Your task to perform on an android device: Clear the shopping cart on newegg.com. Search for macbook pro 15 inch on newegg.com, select the first entry, add it to the cart, then select checkout. Image 0: 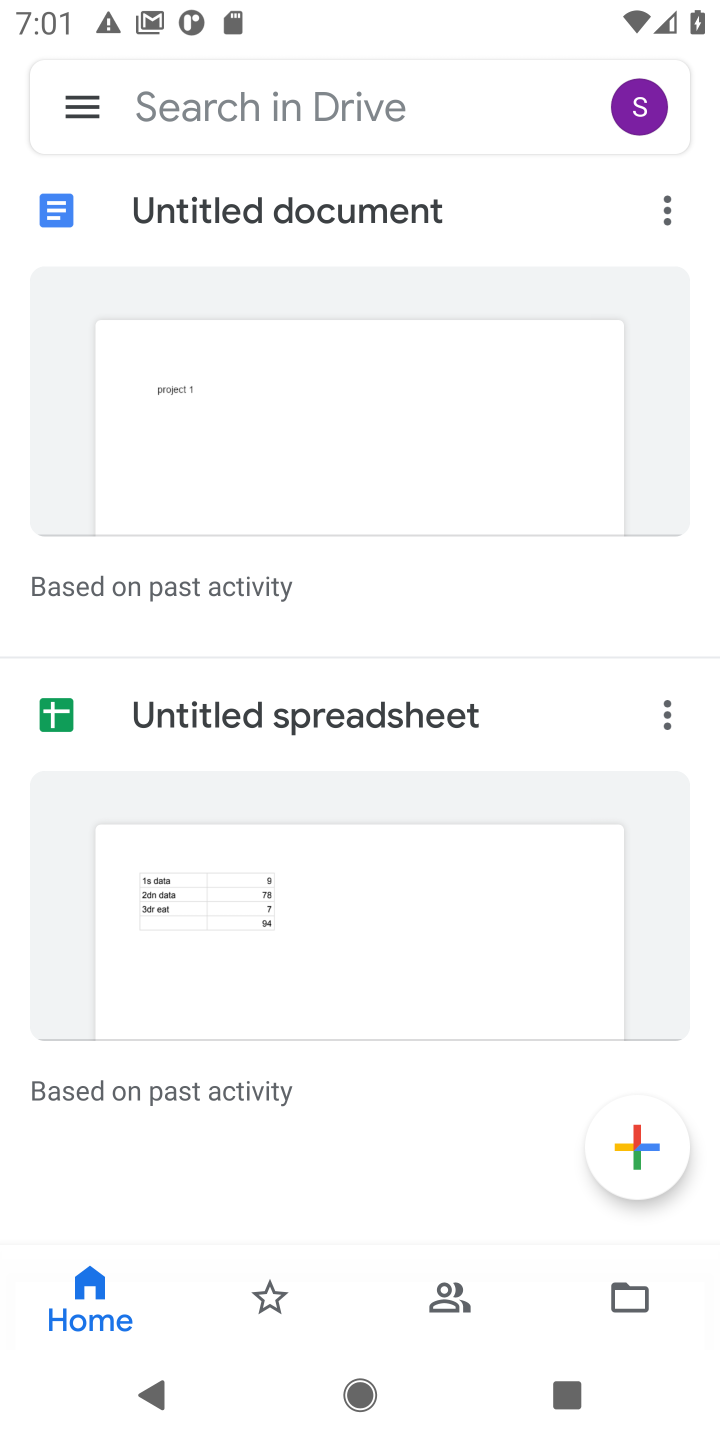
Step 0: press home button
Your task to perform on an android device: Clear the shopping cart on newegg.com. Search for macbook pro 15 inch on newegg.com, select the first entry, add it to the cart, then select checkout. Image 1: 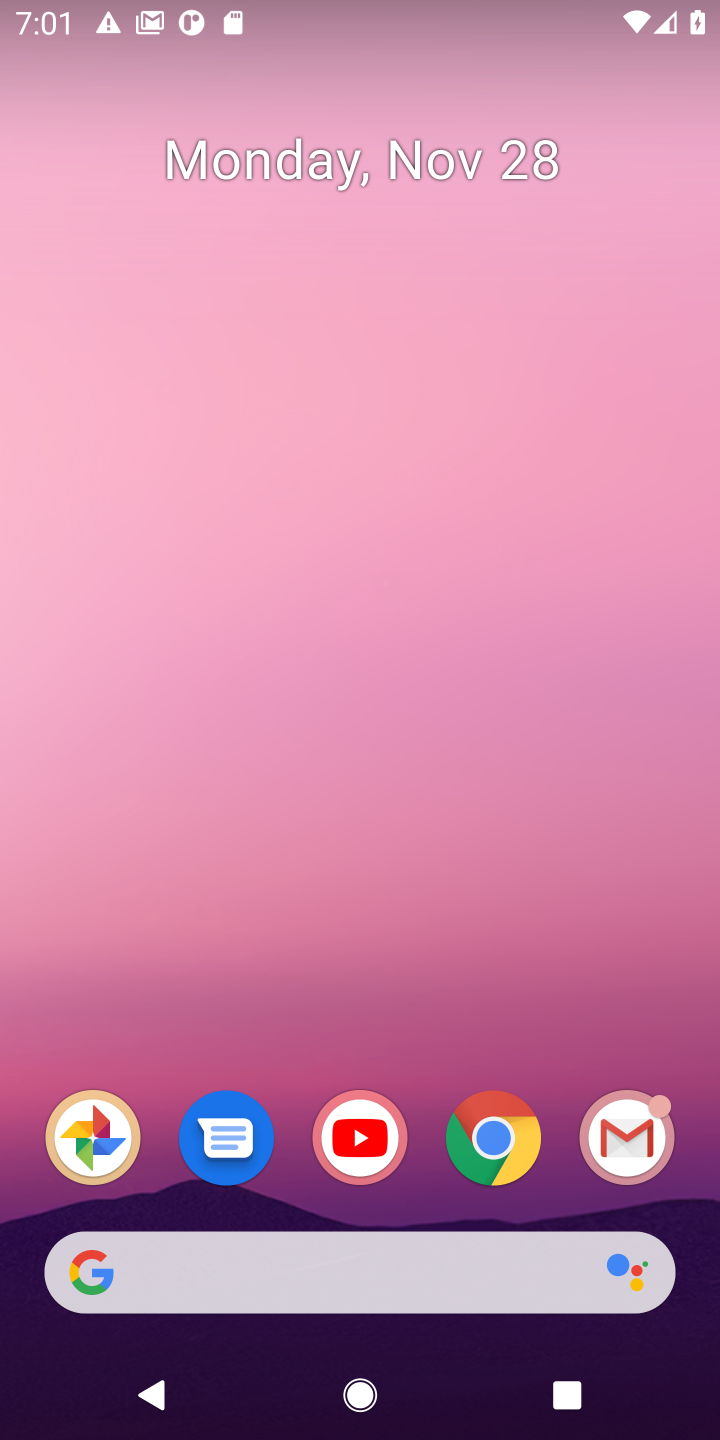
Step 1: click (490, 1156)
Your task to perform on an android device: Clear the shopping cart on newegg.com. Search for macbook pro 15 inch on newegg.com, select the first entry, add it to the cart, then select checkout. Image 2: 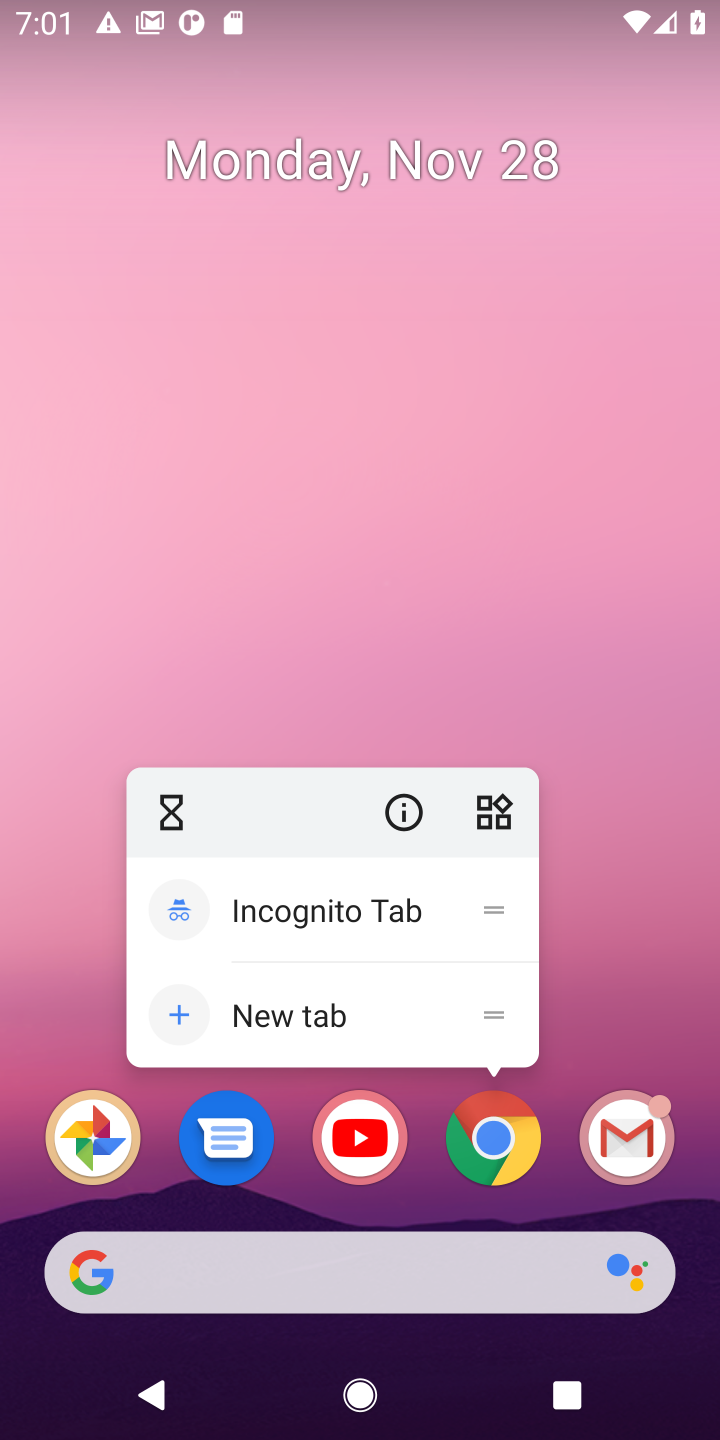
Step 2: click (482, 1147)
Your task to perform on an android device: Clear the shopping cart on newegg.com. Search for macbook pro 15 inch on newegg.com, select the first entry, add it to the cart, then select checkout. Image 3: 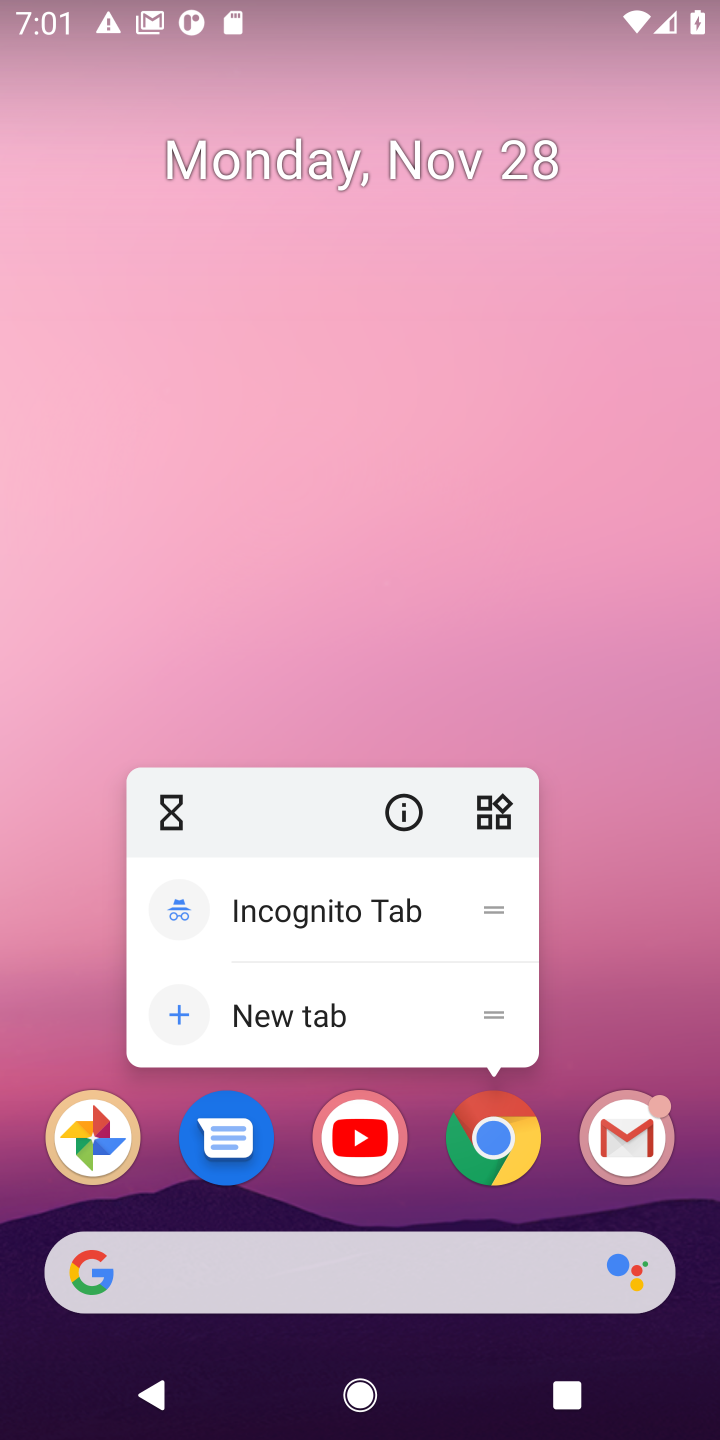
Step 3: click (495, 1142)
Your task to perform on an android device: Clear the shopping cart on newegg.com. Search for macbook pro 15 inch on newegg.com, select the first entry, add it to the cart, then select checkout. Image 4: 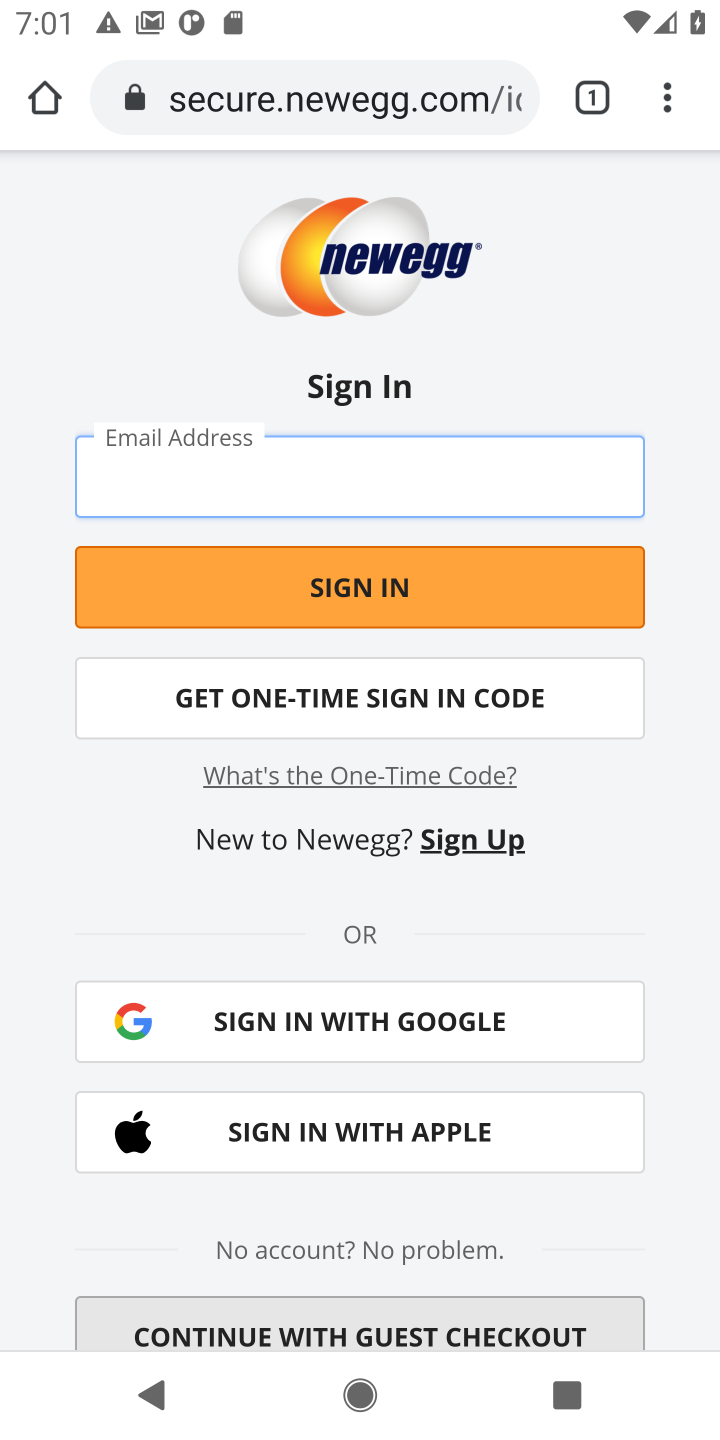
Step 4: press back button
Your task to perform on an android device: Clear the shopping cart on newegg.com. Search for macbook pro 15 inch on newegg.com, select the first entry, add it to the cart, then select checkout. Image 5: 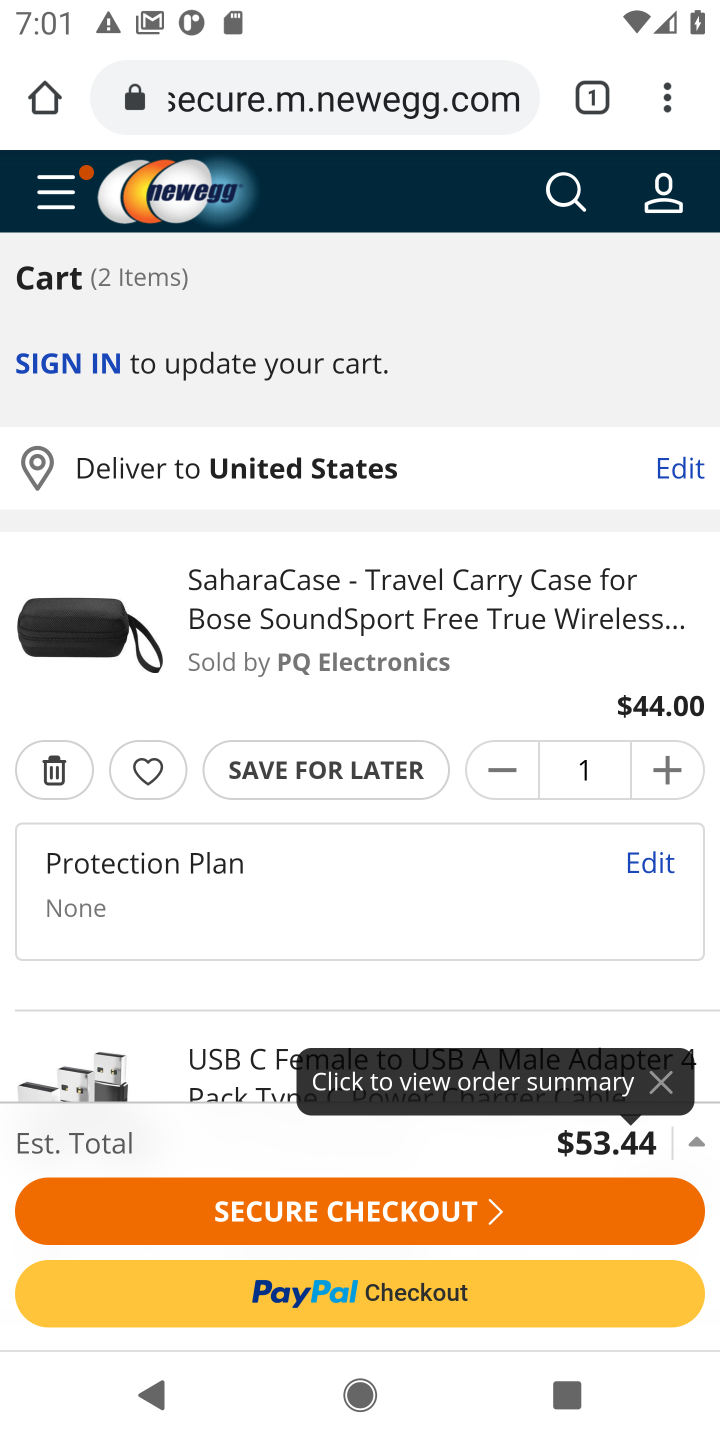
Step 5: click (49, 773)
Your task to perform on an android device: Clear the shopping cart on newegg.com. Search for macbook pro 15 inch on newegg.com, select the first entry, add it to the cart, then select checkout. Image 6: 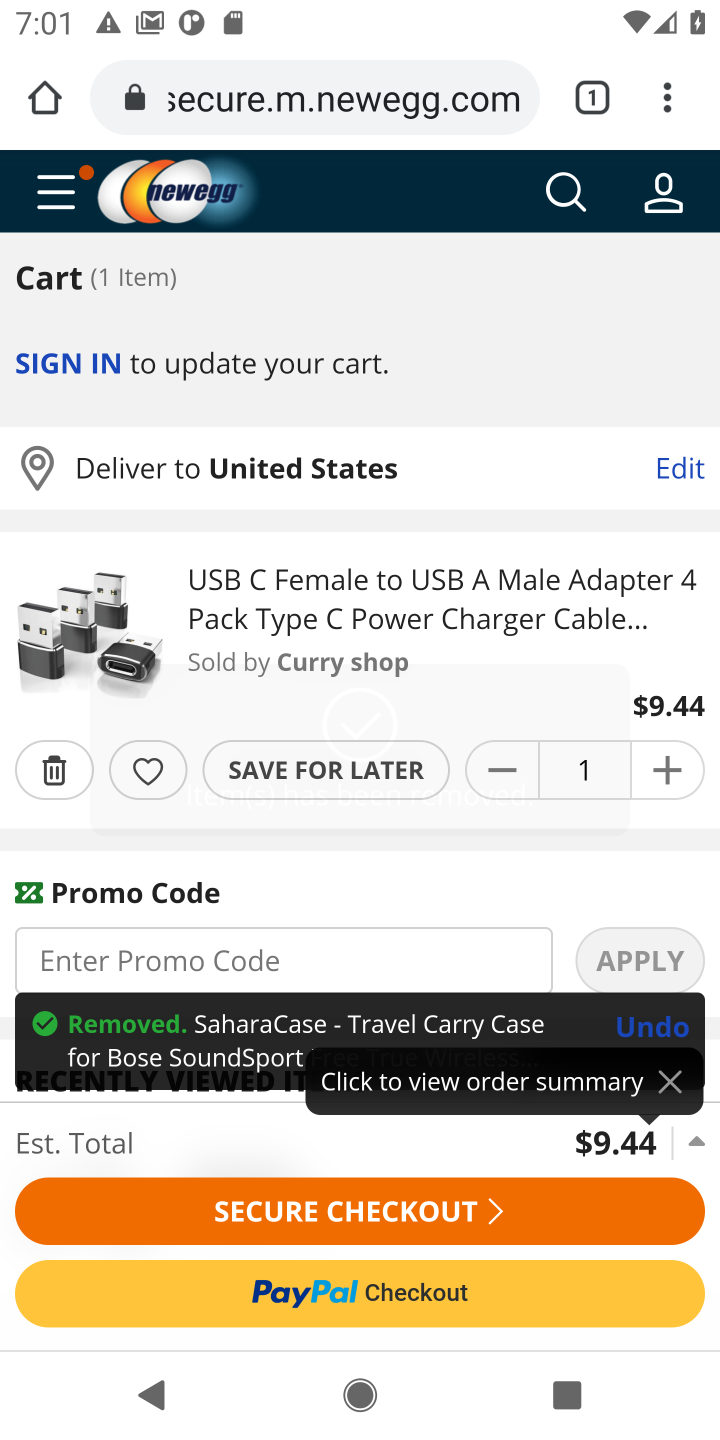
Step 6: click (49, 773)
Your task to perform on an android device: Clear the shopping cart on newegg.com. Search for macbook pro 15 inch on newegg.com, select the first entry, add it to the cart, then select checkout. Image 7: 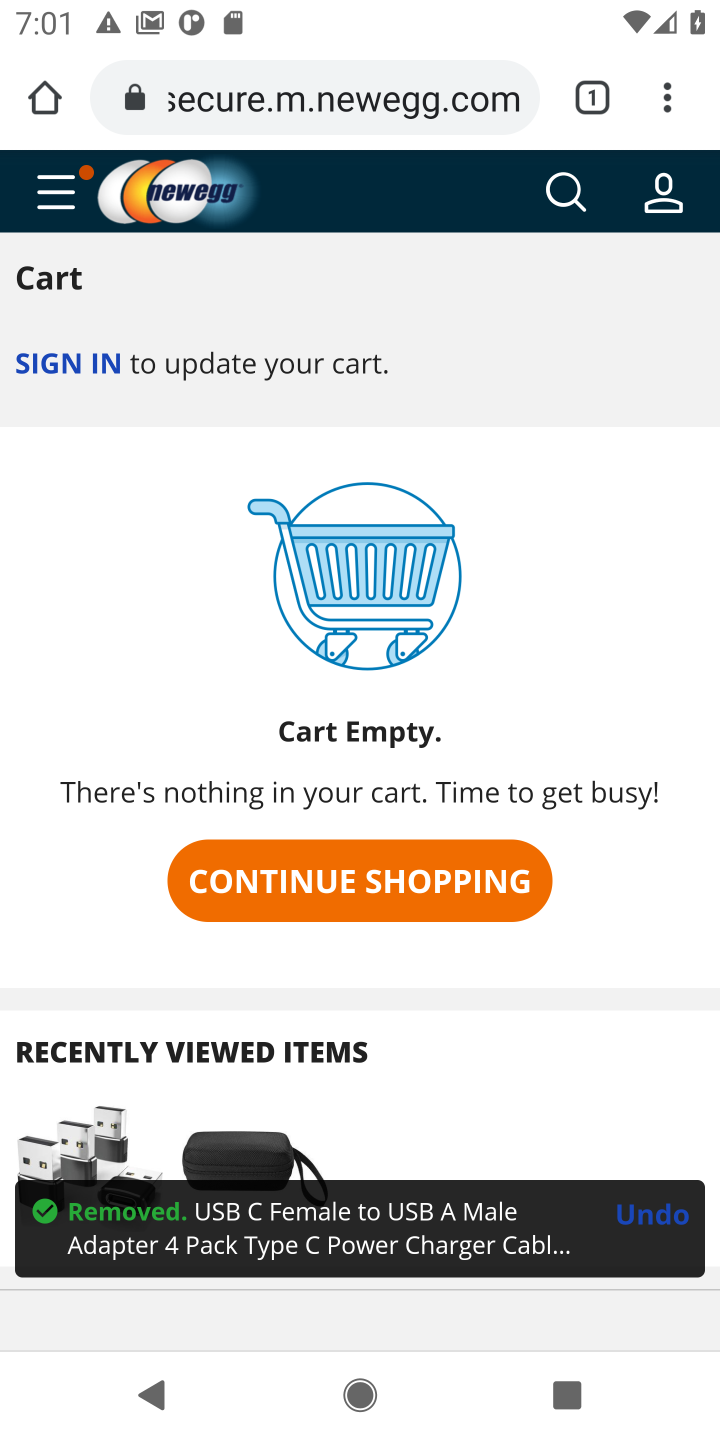
Step 7: click (324, 880)
Your task to perform on an android device: Clear the shopping cart on newegg.com. Search for macbook pro 15 inch on newegg.com, select the first entry, add it to the cart, then select checkout. Image 8: 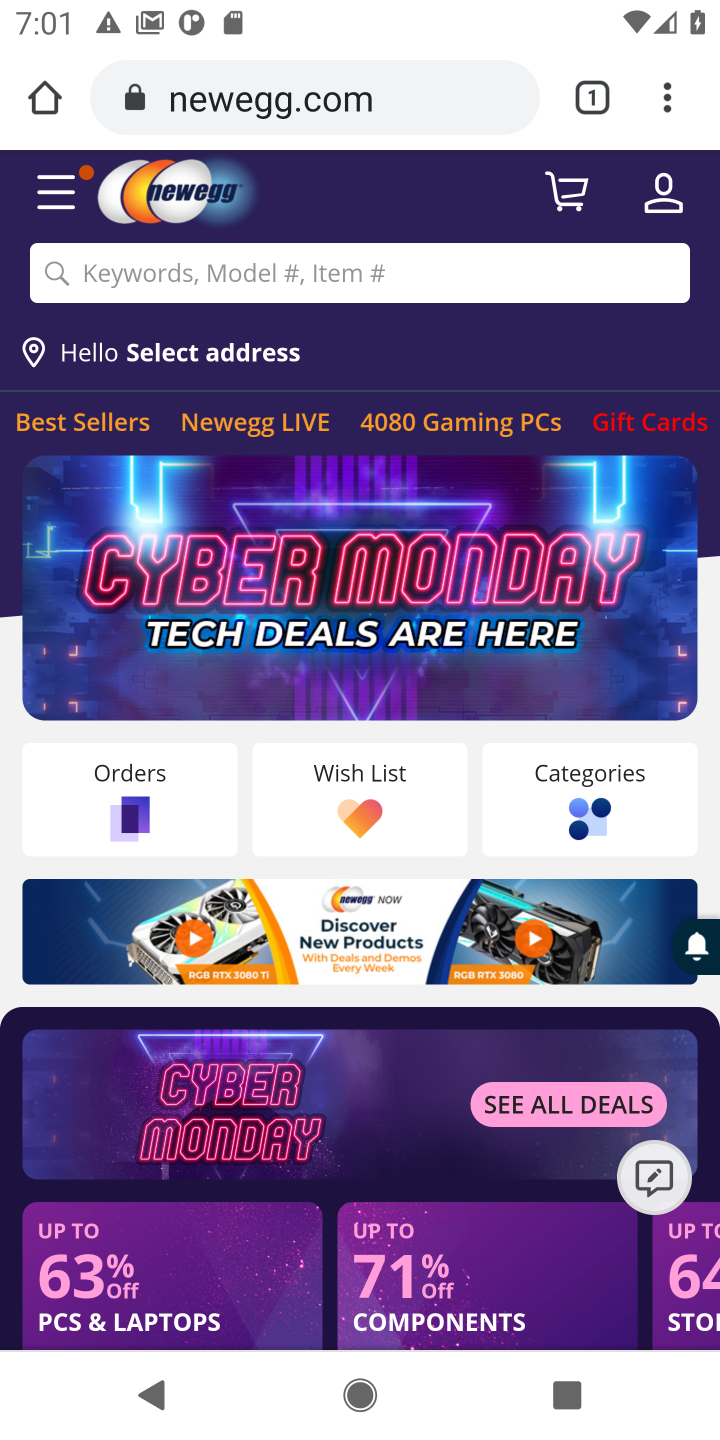
Step 8: click (119, 291)
Your task to perform on an android device: Clear the shopping cart on newegg.com. Search for macbook pro 15 inch on newegg.com, select the first entry, add it to the cart, then select checkout. Image 9: 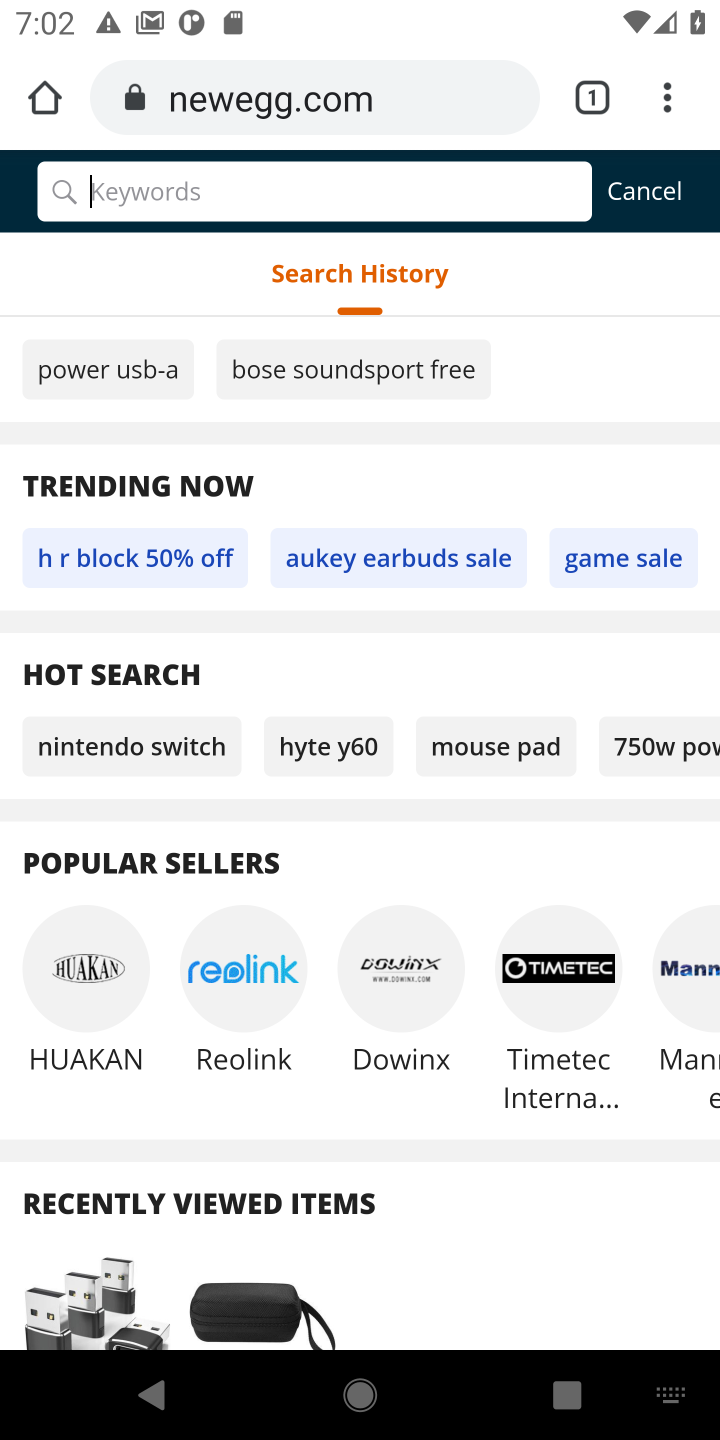
Step 9: type "macbook pro 15 inch"
Your task to perform on an android device: Clear the shopping cart on newegg.com. Search for macbook pro 15 inch on newegg.com, select the first entry, add it to the cart, then select checkout. Image 10: 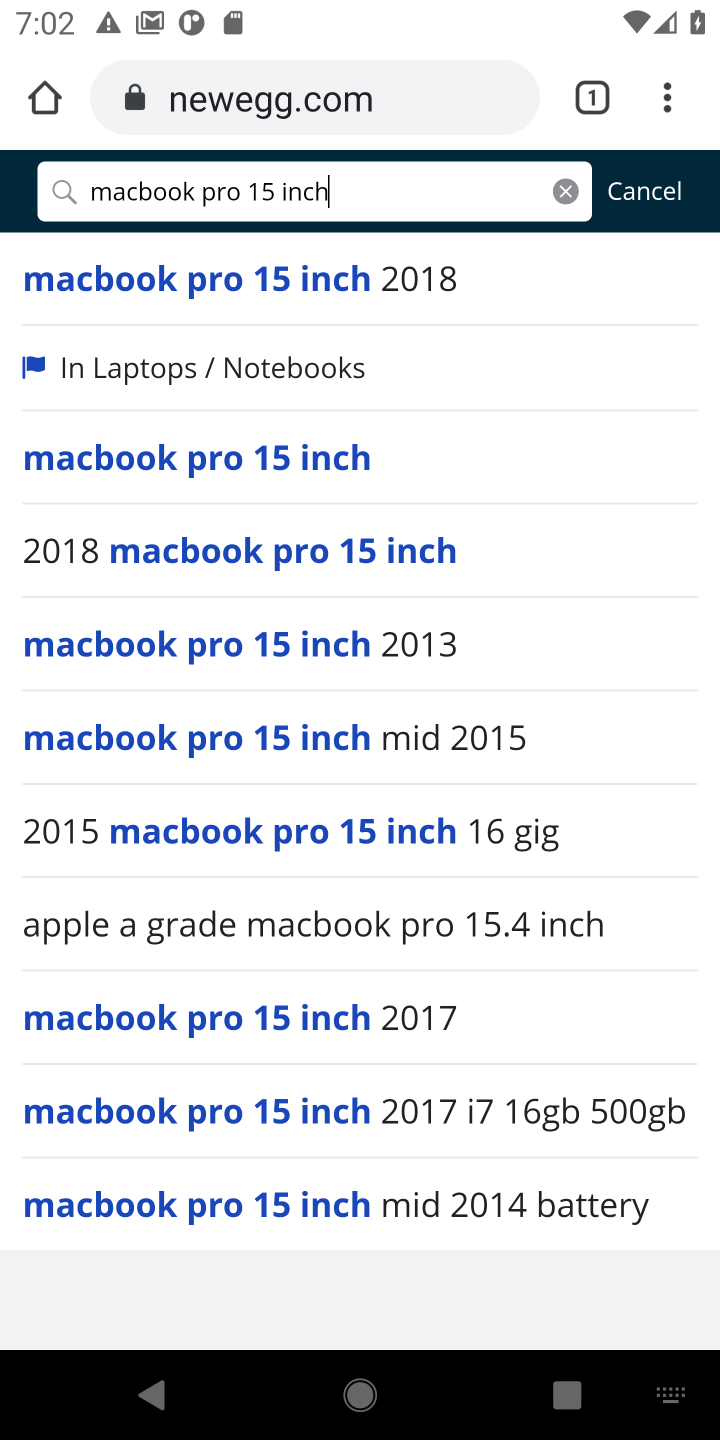
Step 10: click (269, 466)
Your task to perform on an android device: Clear the shopping cart on newegg.com. Search for macbook pro 15 inch on newegg.com, select the first entry, add it to the cart, then select checkout. Image 11: 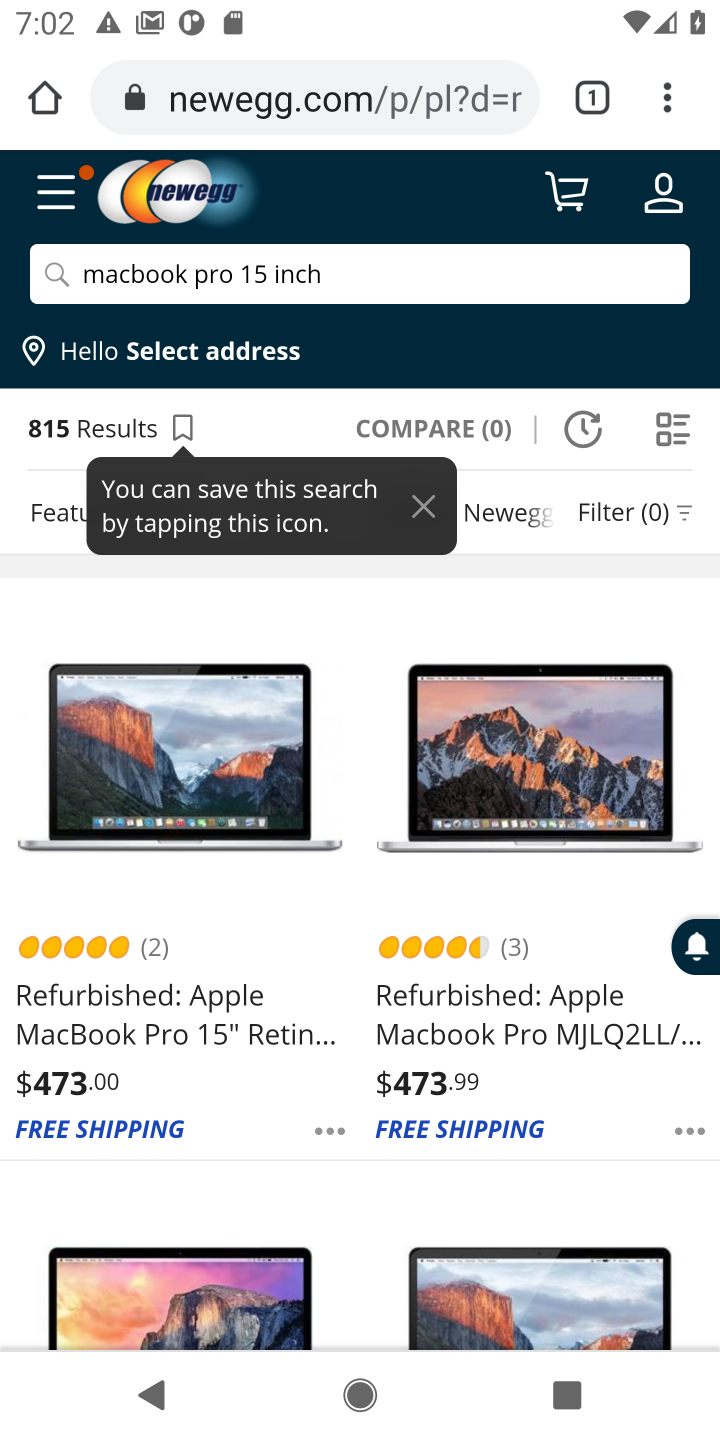
Step 11: click (103, 976)
Your task to perform on an android device: Clear the shopping cart on newegg.com. Search for macbook pro 15 inch on newegg.com, select the first entry, add it to the cart, then select checkout. Image 12: 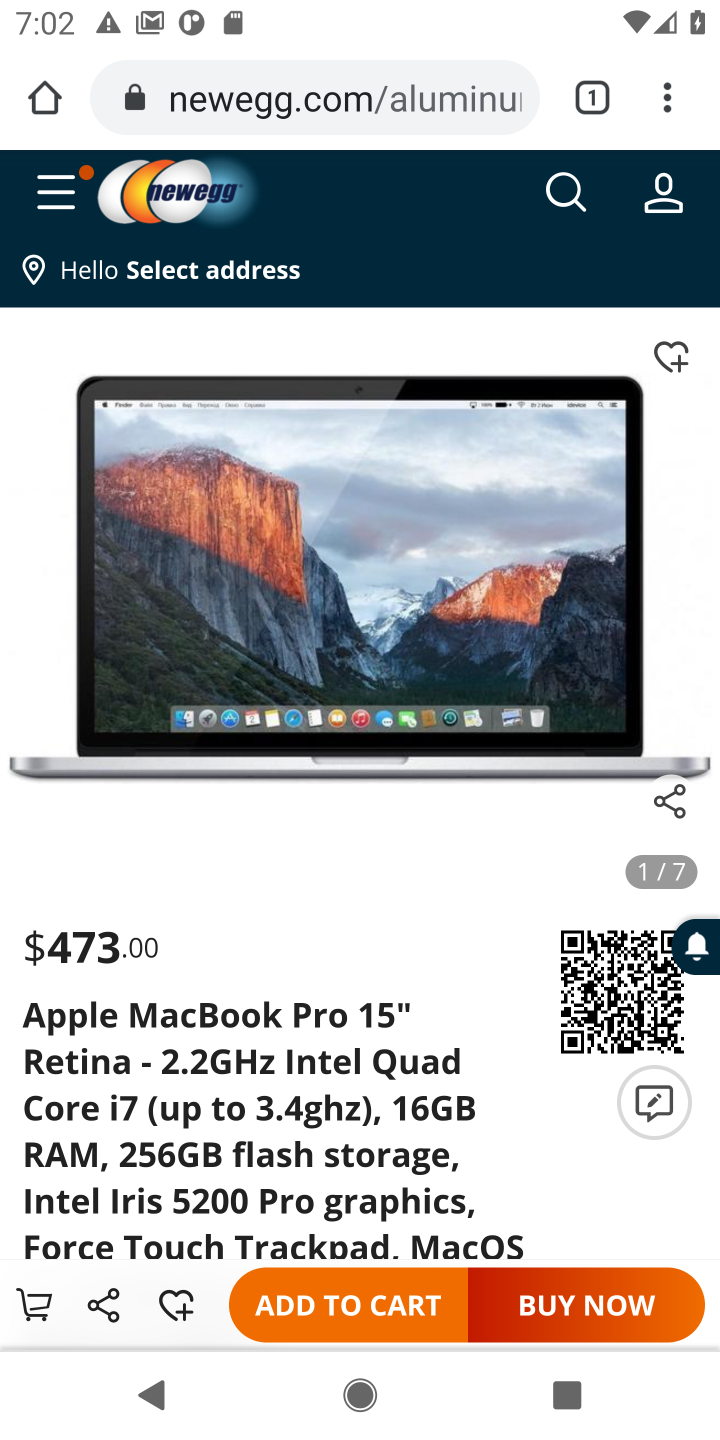
Step 12: click (364, 1307)
Your task to perform on an android device: Clear the shopping cart on newegg.com. Search for macbook pro 15 inch on newegg.com, select the first entry, add it to the cart, then select checkout. Image 13: 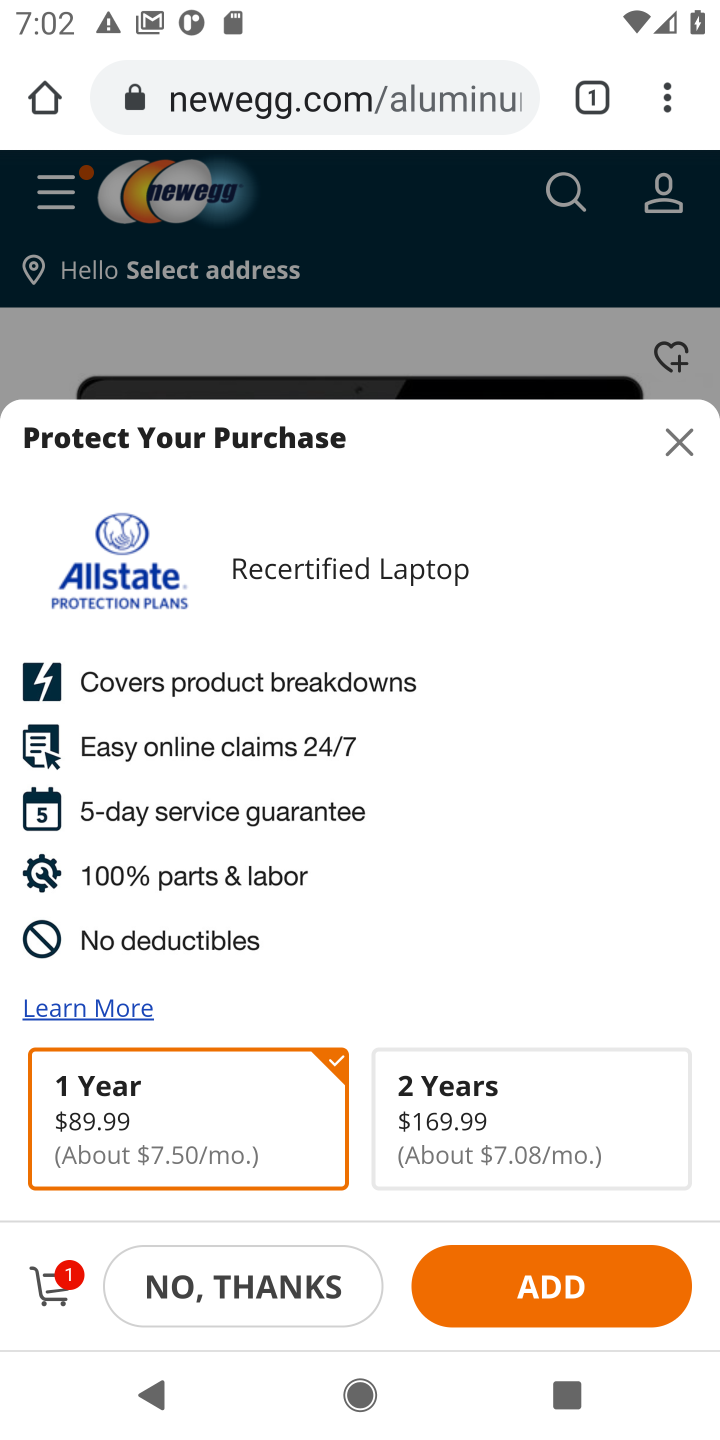
Step 13: click (49, 1284)
Your task to perform on an android device: Clear the shopping cart on newegg.com. Search for macbook pro 15 inch on newegg.com, select the first entry, add it to the cart, then select checkout. Image 14: 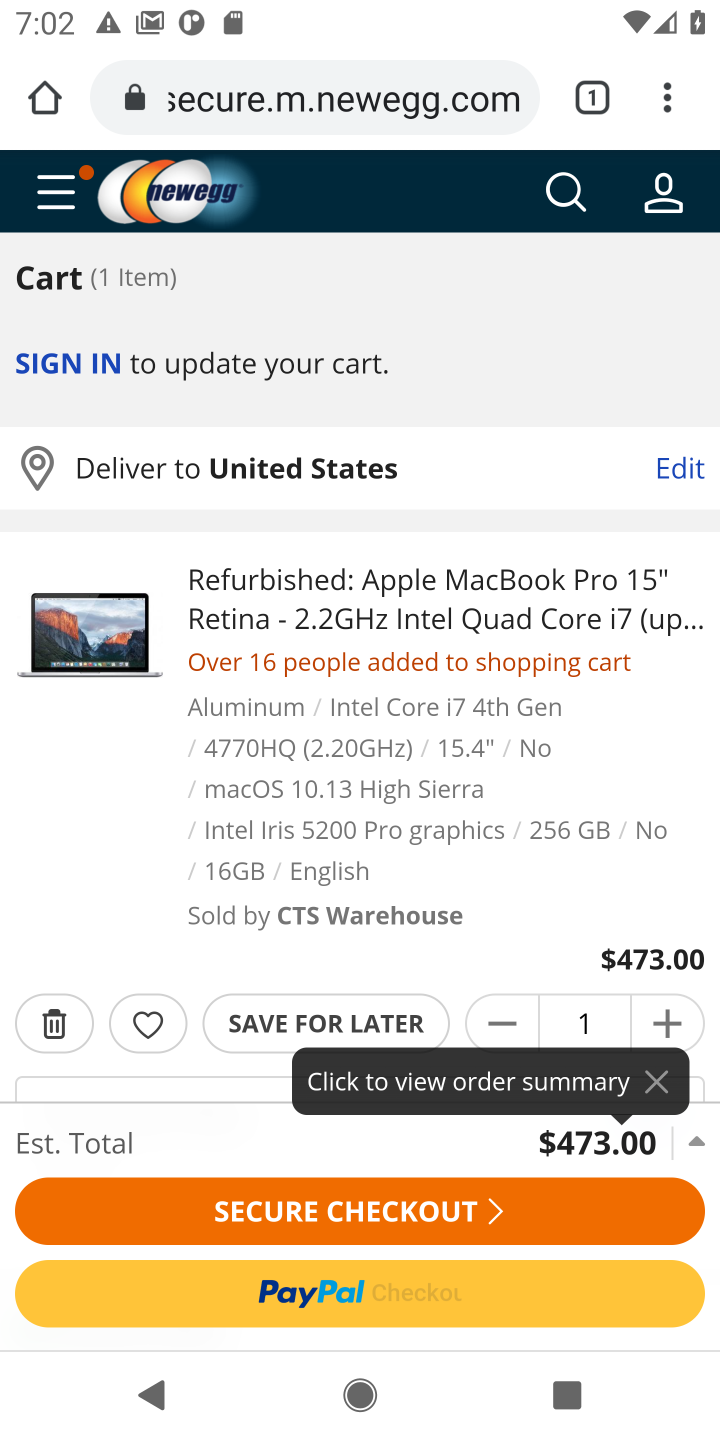
Step 14: click (309, 1213)
Your task to perform on an android device: Clear the shopping cart on newegg.com. Search for macbook pro 15 inch on newegg.com, select the first entry, add it to the cart, then select checkout. Image 15: 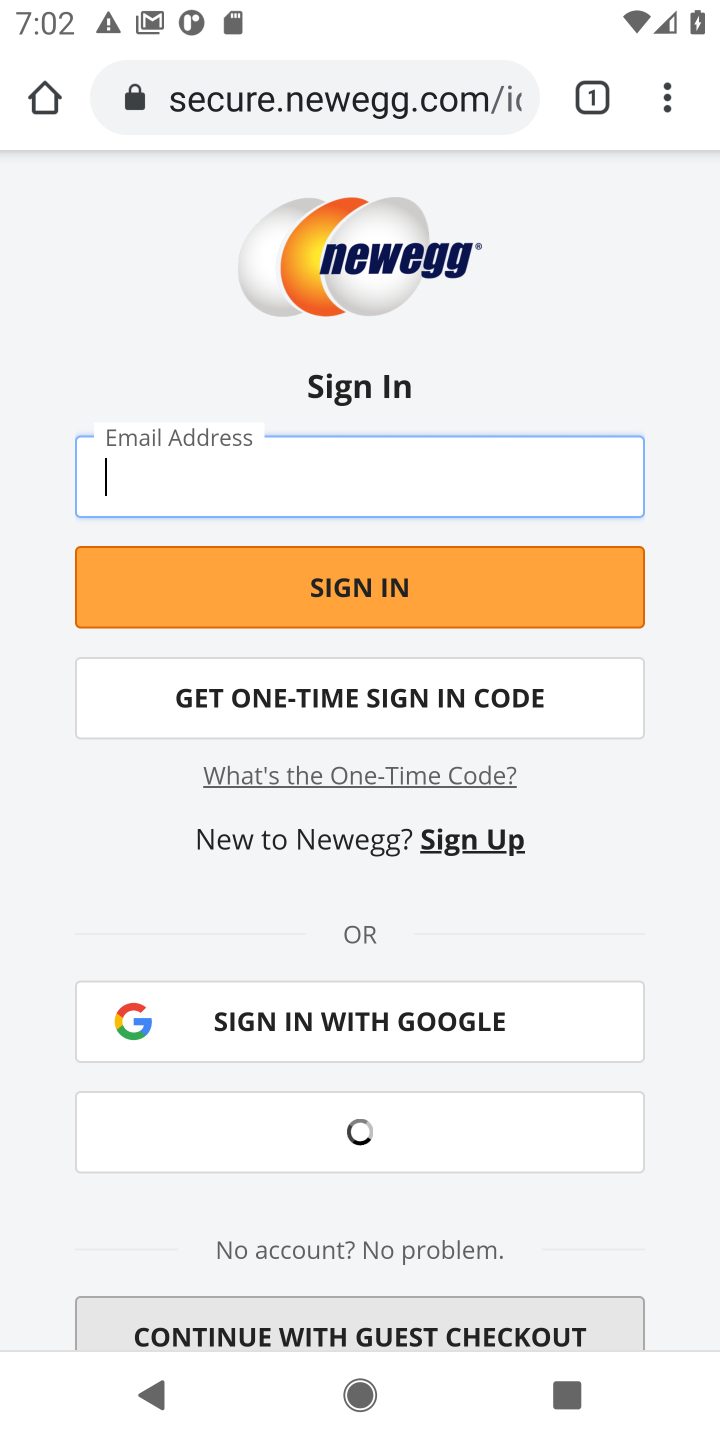
Step 15: task complete